Your task to perform on an android device: turn off airplane mode Image 0: 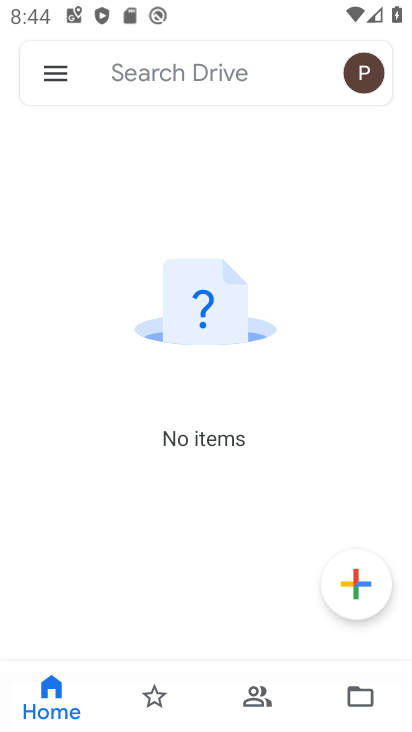
Step 0: press home button
Your task to perform on an android device: turn off airplane mode Image 1: 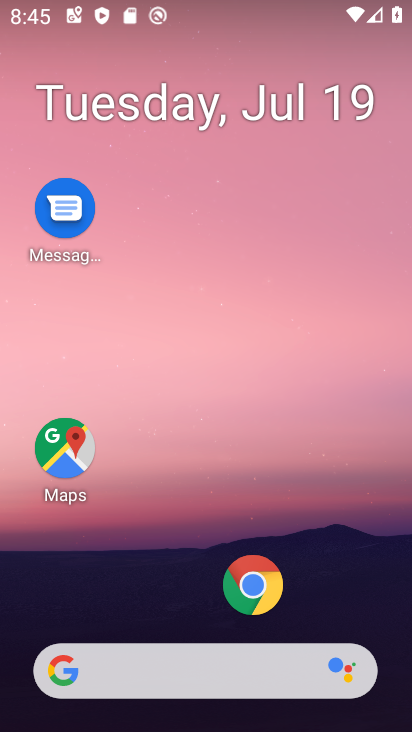
Step 1: drag from (177, 639) to (169, 0)
Your task to perform on an android device: turn off airplane mode Image 2: 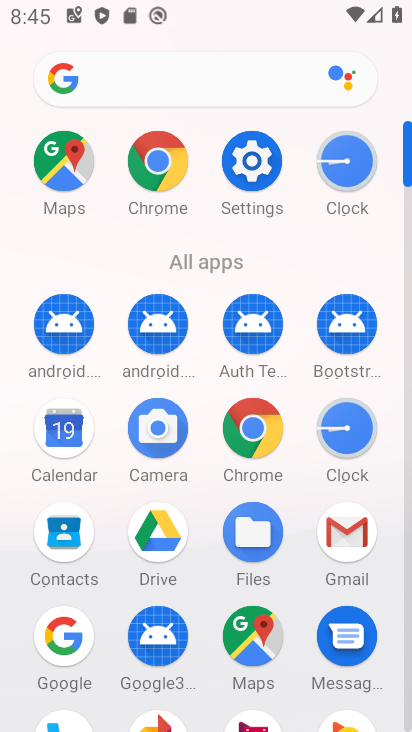
Step 2: click (240, 160)
Your task to perform on an android device: turn off airplane mode Image 3: 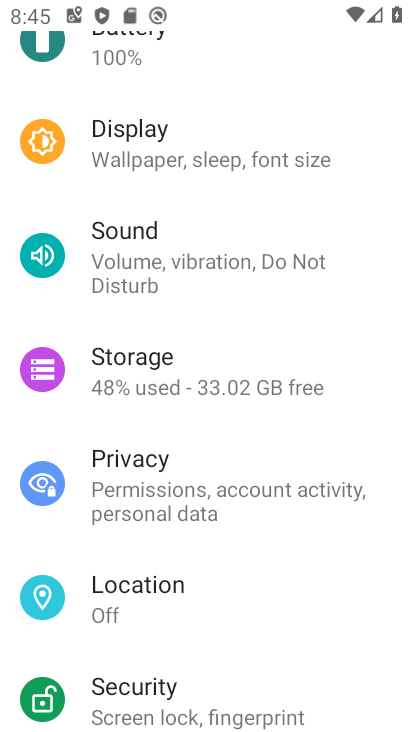
Step 3: drag from (240, 160) to (179, 566)
Your task to perform on an android device: turn off airplane mode Image 4: 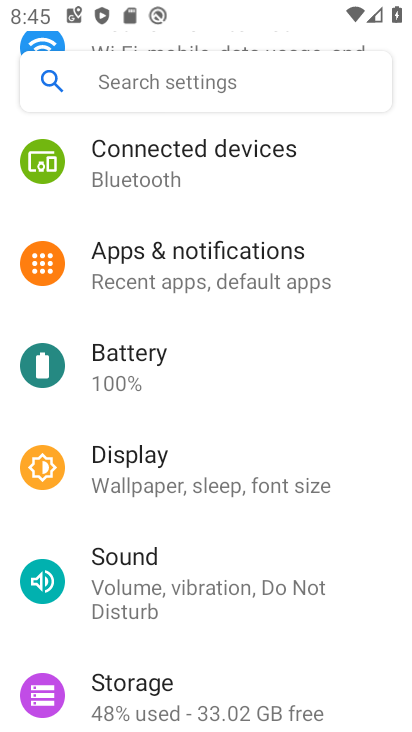
Step 4: drag from (206, 277) to (162, 709)
Your task to perform on an android device: turn off airplane mode Image 5: 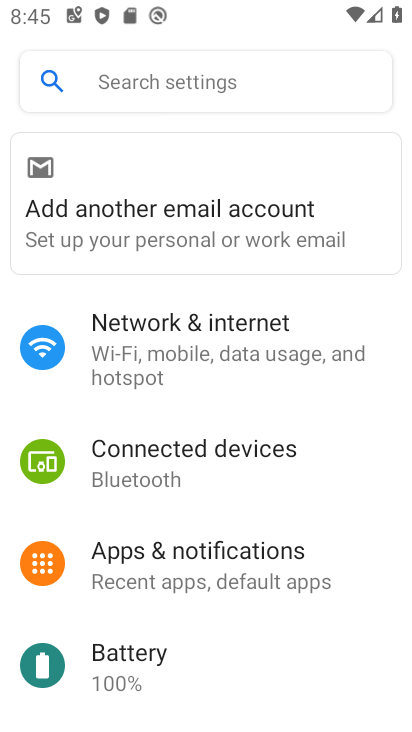
Step 5: click (212, 335)
Your task to perform on an android device: turn off airplane mode Image 6: 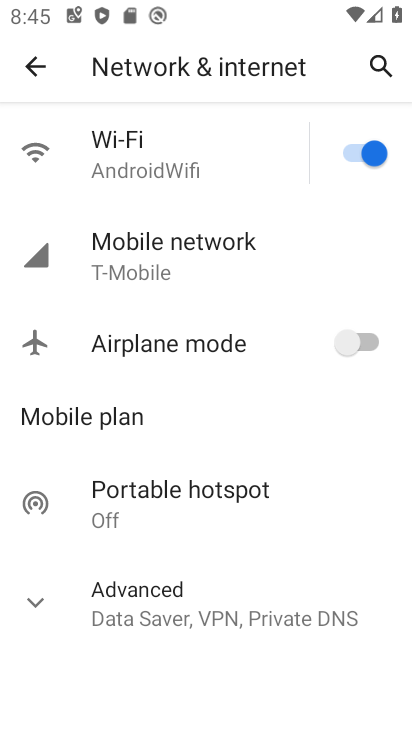
Step 6: task complete